Your task to perform on an android device: Go to Wikipedia Image 0: 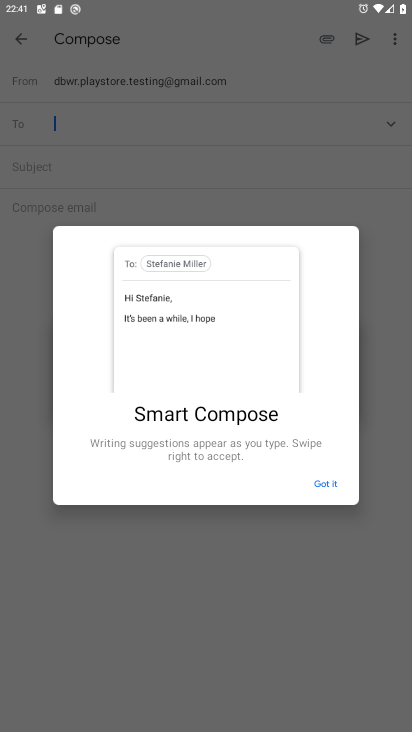
Step 0: press home button
Your task to perform on an android device: Go to Wikipedia Image 1: 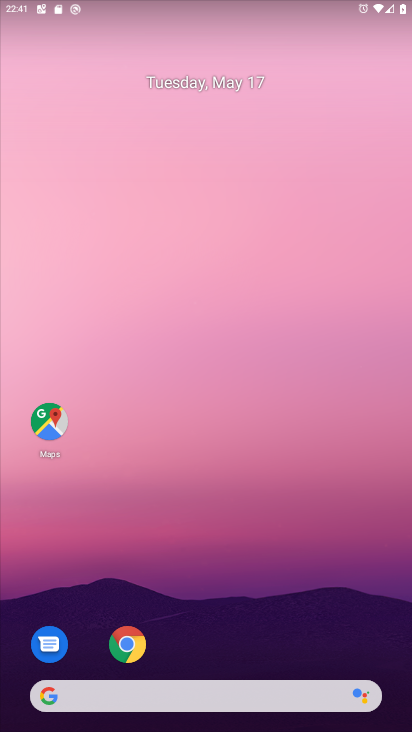
Step 1: click (127, 639)
Your task to perform on an android device: Go to Wikipedia Image 2: 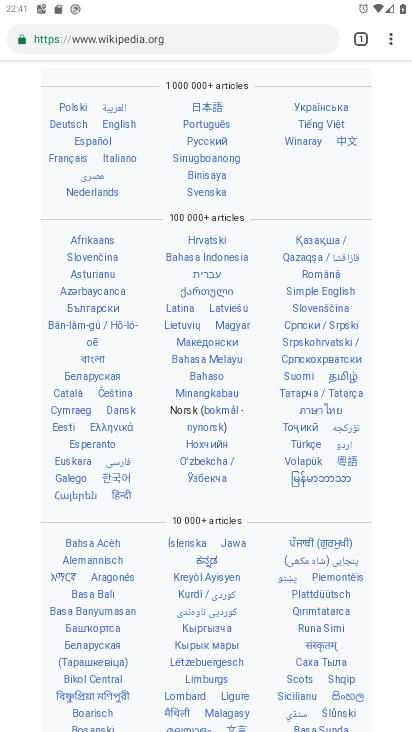
Step 2: task complete